Your task to perform on an android device: Clear all items from cart on walmart.com. Search for "macbook pro 13 inch" on walmart.com, select the first entry, add it to the cart, then select checkout. Image 0: 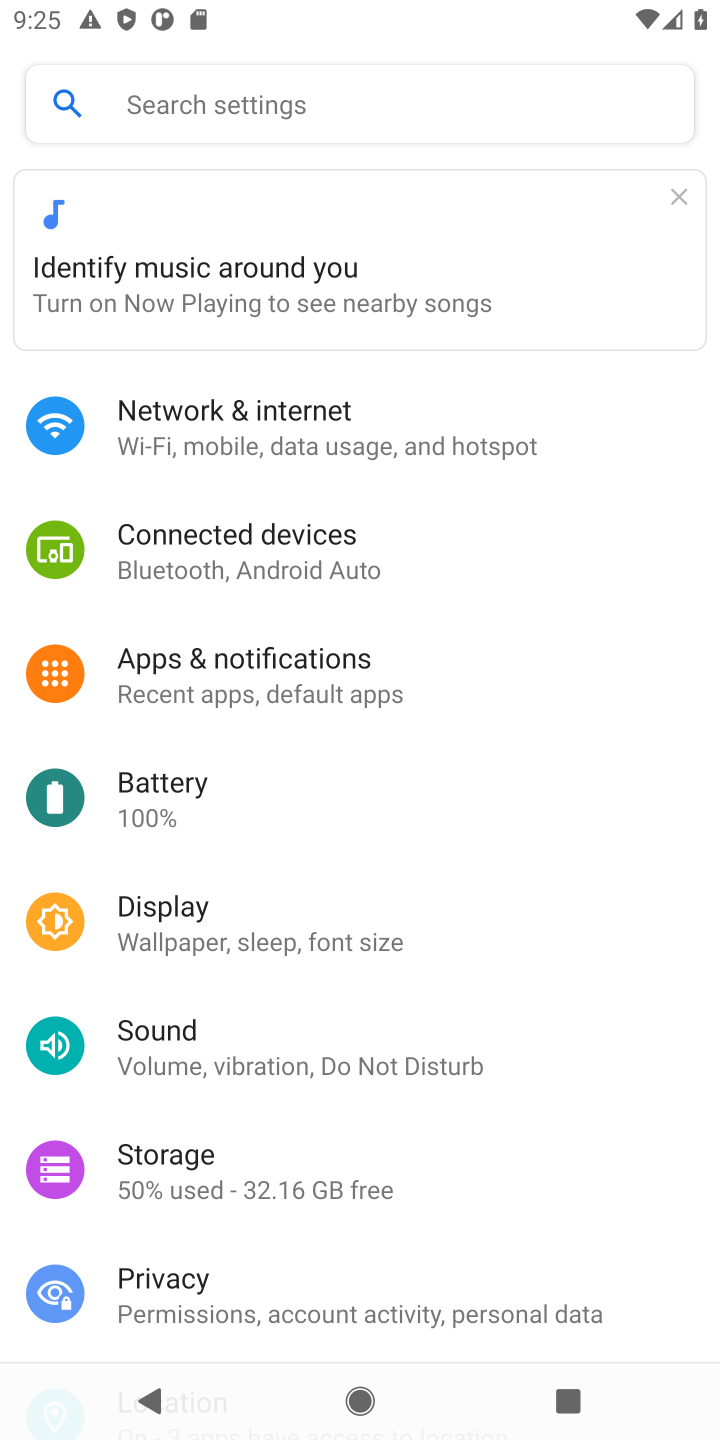
Step 0: press home button
Your task to perform on an android device: Clear all items from cart on walmart.com. Search for "macbook pro 13 inch" on walmart.com, select the first entry, add it to the cart, then select checkout. Image 1: 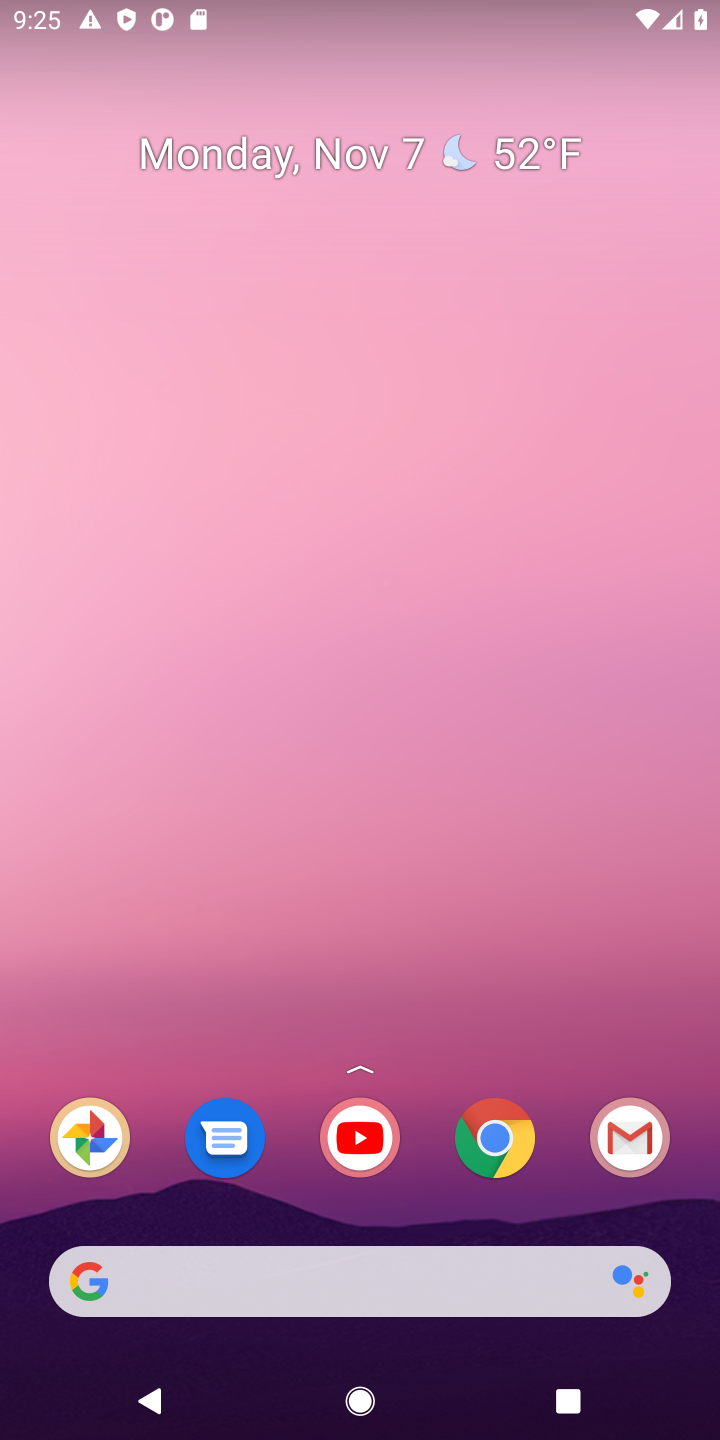
Step 1: drag from (427, 1229) to (351, 203)
Your task to perform on an android device: Clear all items from cart on walmart.com. Search for "macbook pro 13 inch" on walmart.com, select the first entry, add it to the cart, then select checkout. Image 2: 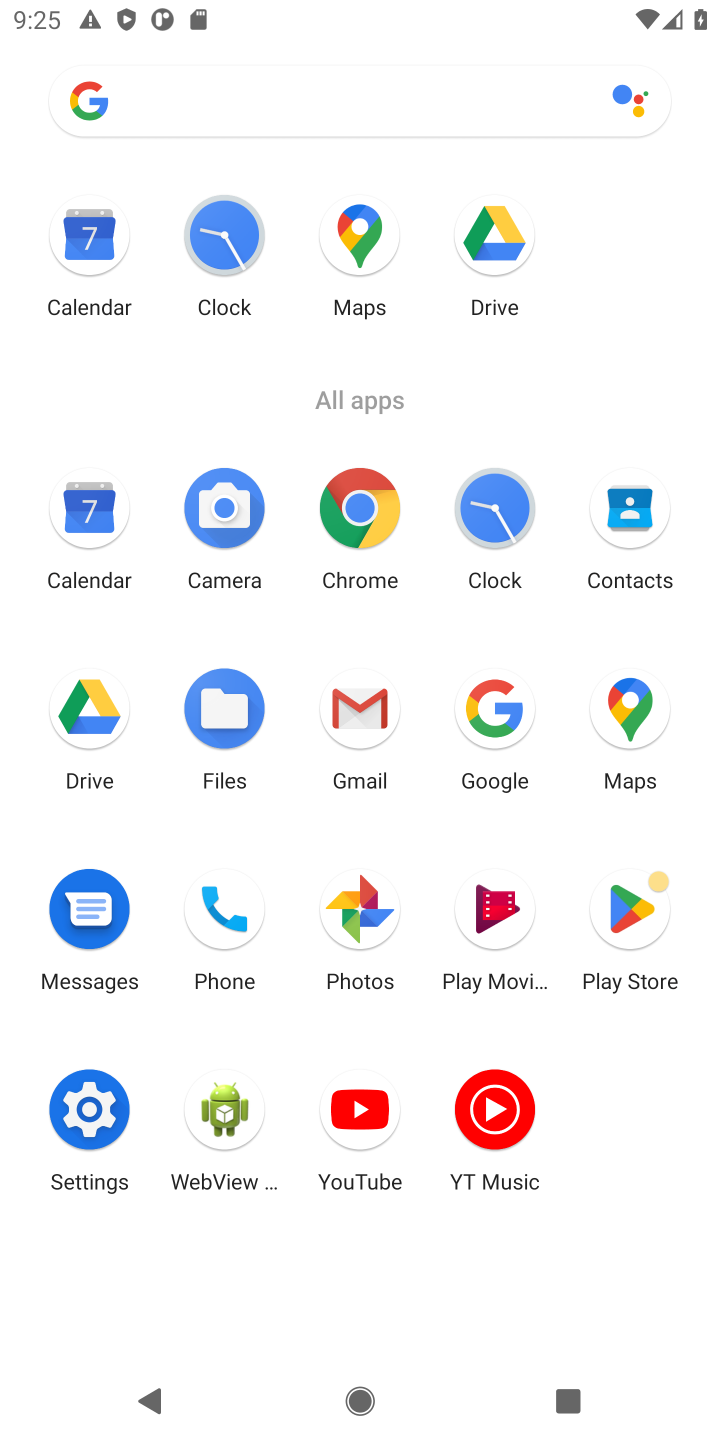
Step 2: click (353, 509)
Your task to perform on an android device: Clear all items from cart on walmart.com. Search for "macbook pro 13 inch" on walmart.com, select the first entry, add it to the cart, then select checkout. Image 3: 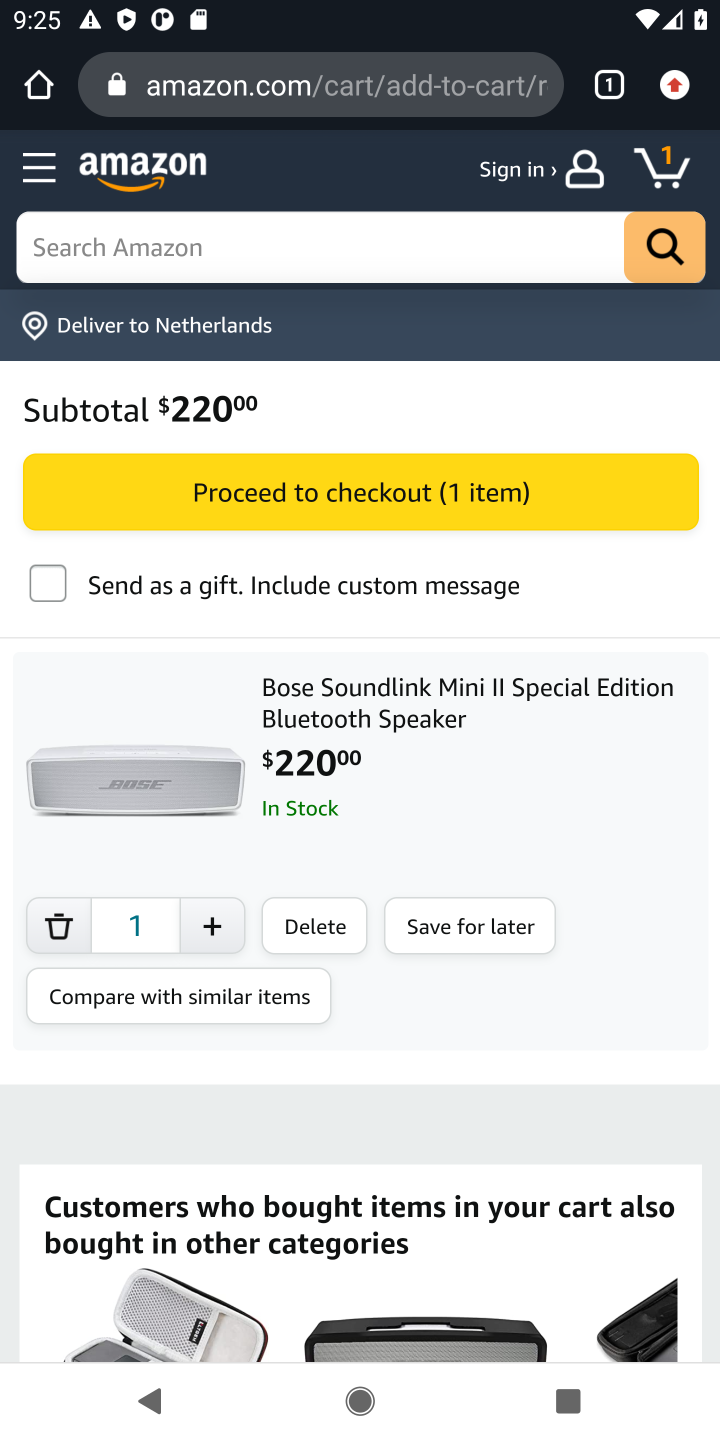
Step 3: click (358, 78)
Your task to perform on an android device: Clear all items from cart on walmart.com. Search for "macbook pro 13 inch" on walmart.com, select the first entry, add it to the cart, then select checkout. Image 4: 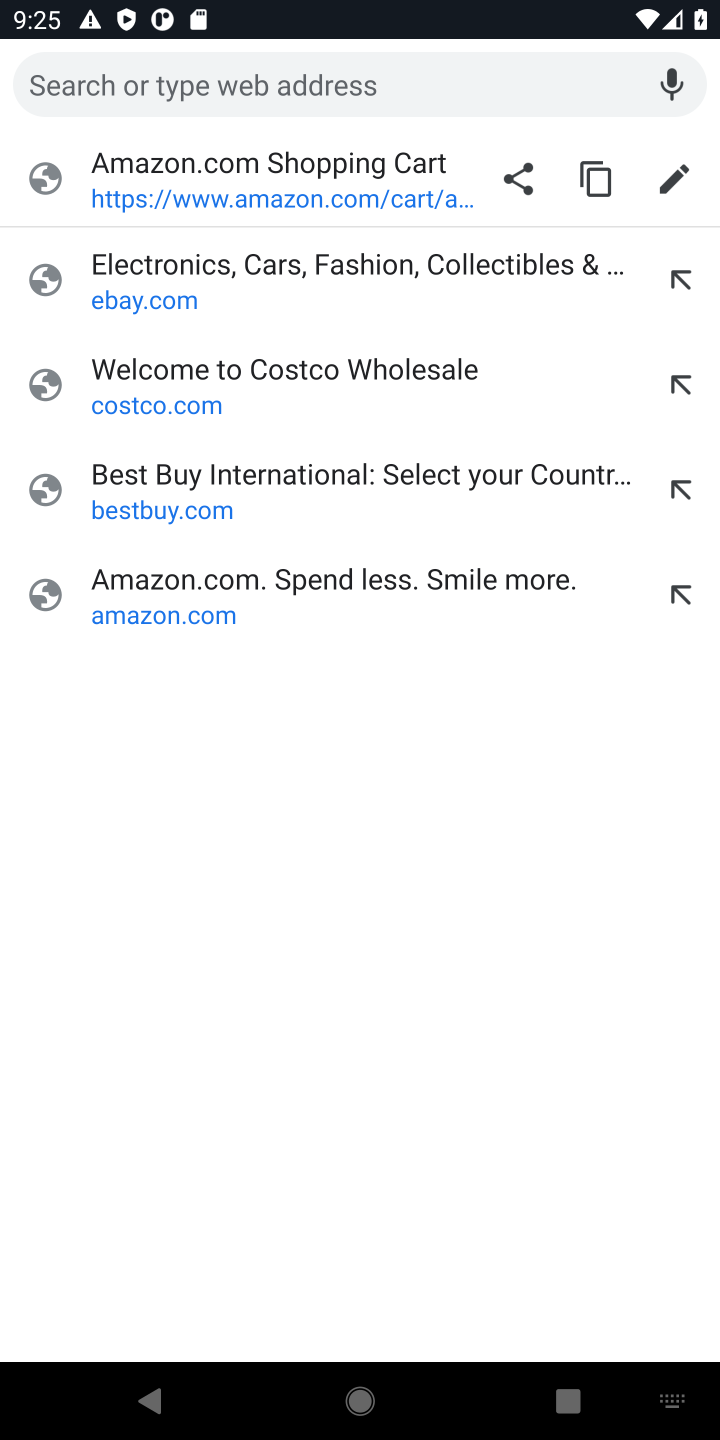
Step 4: type "walmart.com"
Your task to perform on an android device: Clear all items from cart on walmart.com. Search for "macbook pro 13 inch" on walmart.com, select the first entry, add it to the cart, then select checkout. Image 5: 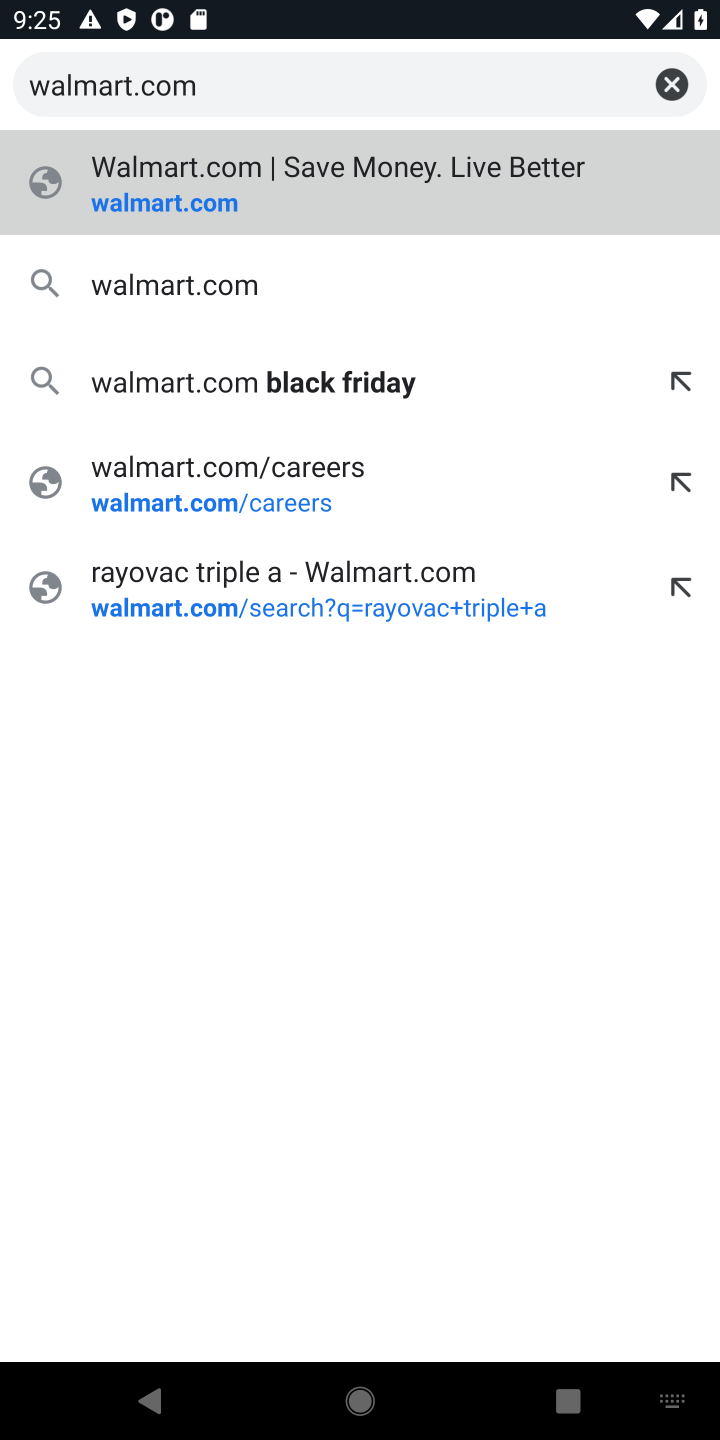
Step 5: press enter
Your task to perform on an android device: Clear all items from cart on walmart.com. Search for "macbook pro 13 inch" on walmart.com, select the first entry, add it to the cart, then select checkout. Image 6: 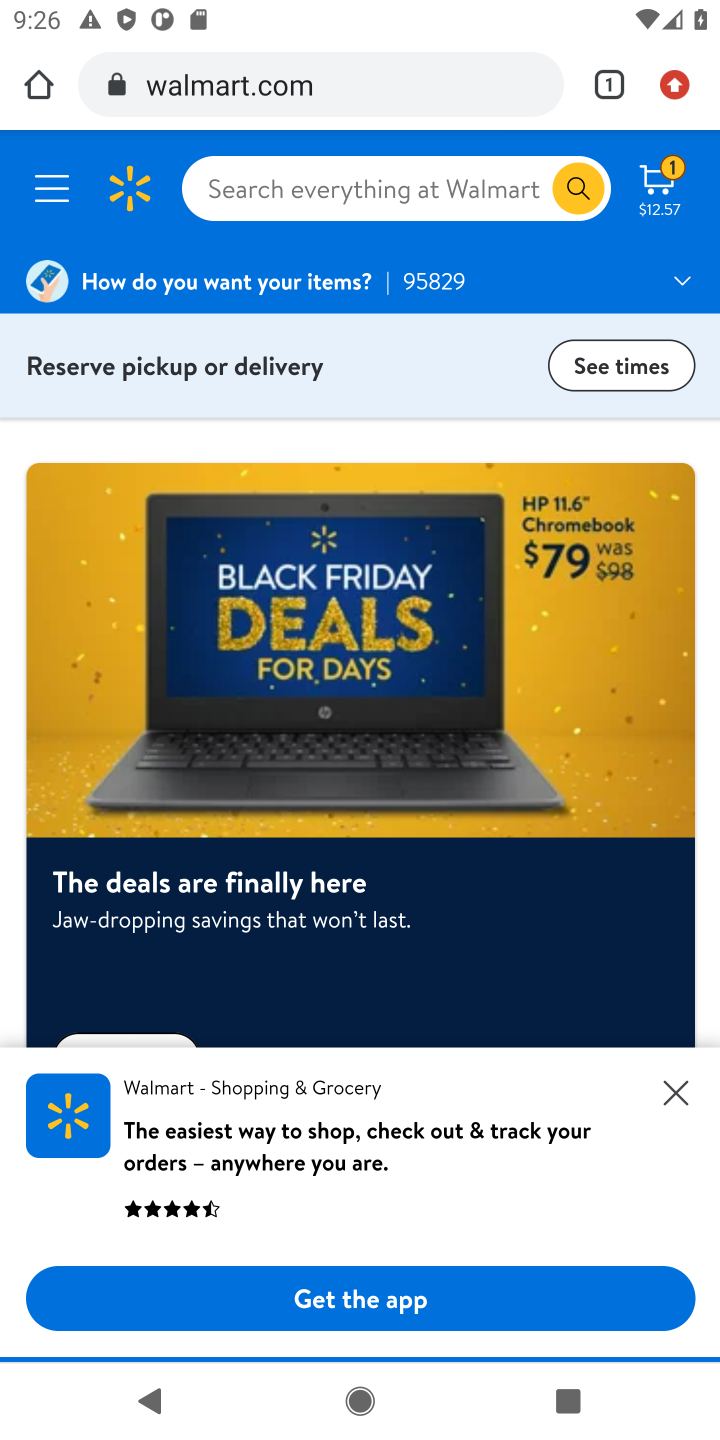
Step 6: click (667, 198)
Your task to perform on an android device: Clear all items from cart on walmart.com. Search for "macbook pro 13 inch" on walmart.com, select the first entry, add it to the cart, then select checkout. Image 7: 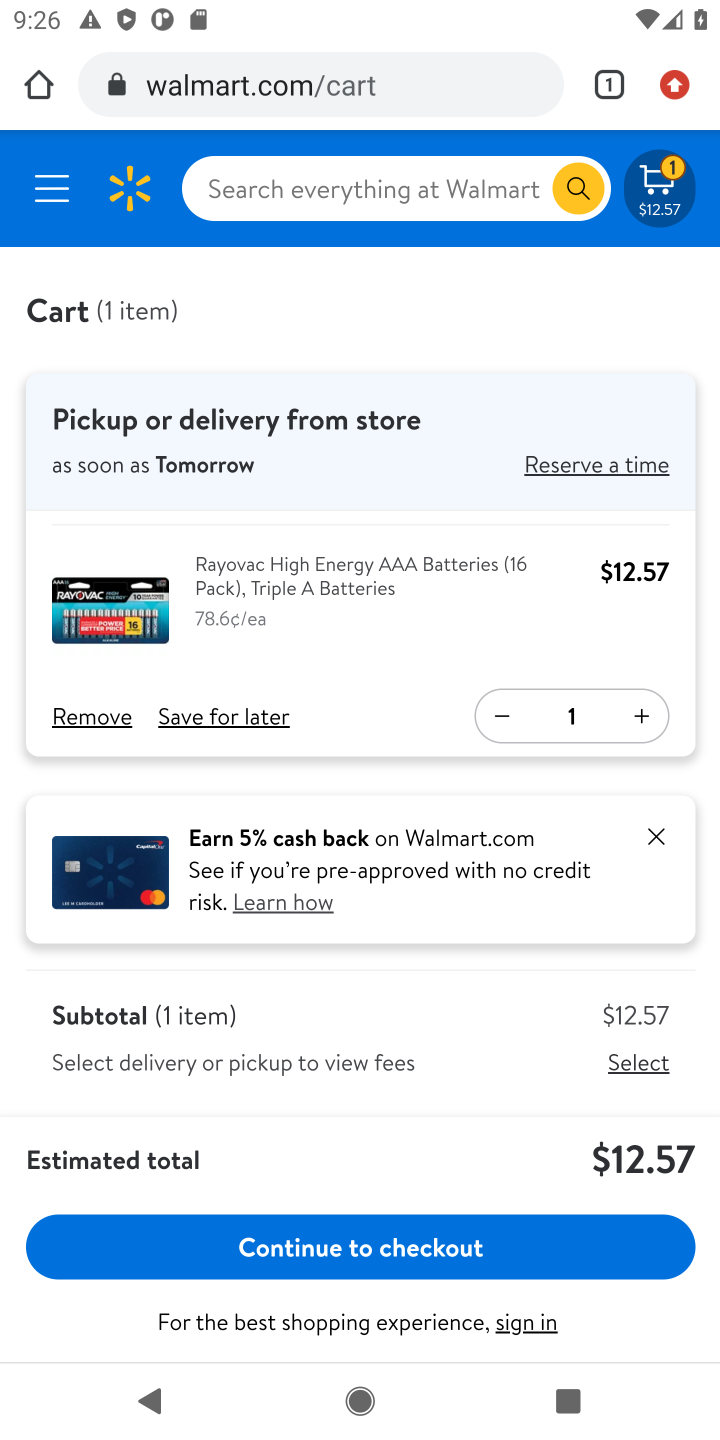
Step 7: click (93, 719)
Your task to perform on an android device: Clear all items from cart on walmart.com. Search for "macbook pro 13 inch" on walmart.com, select the first entry, add it to the cart, then select checkout. Image 8: 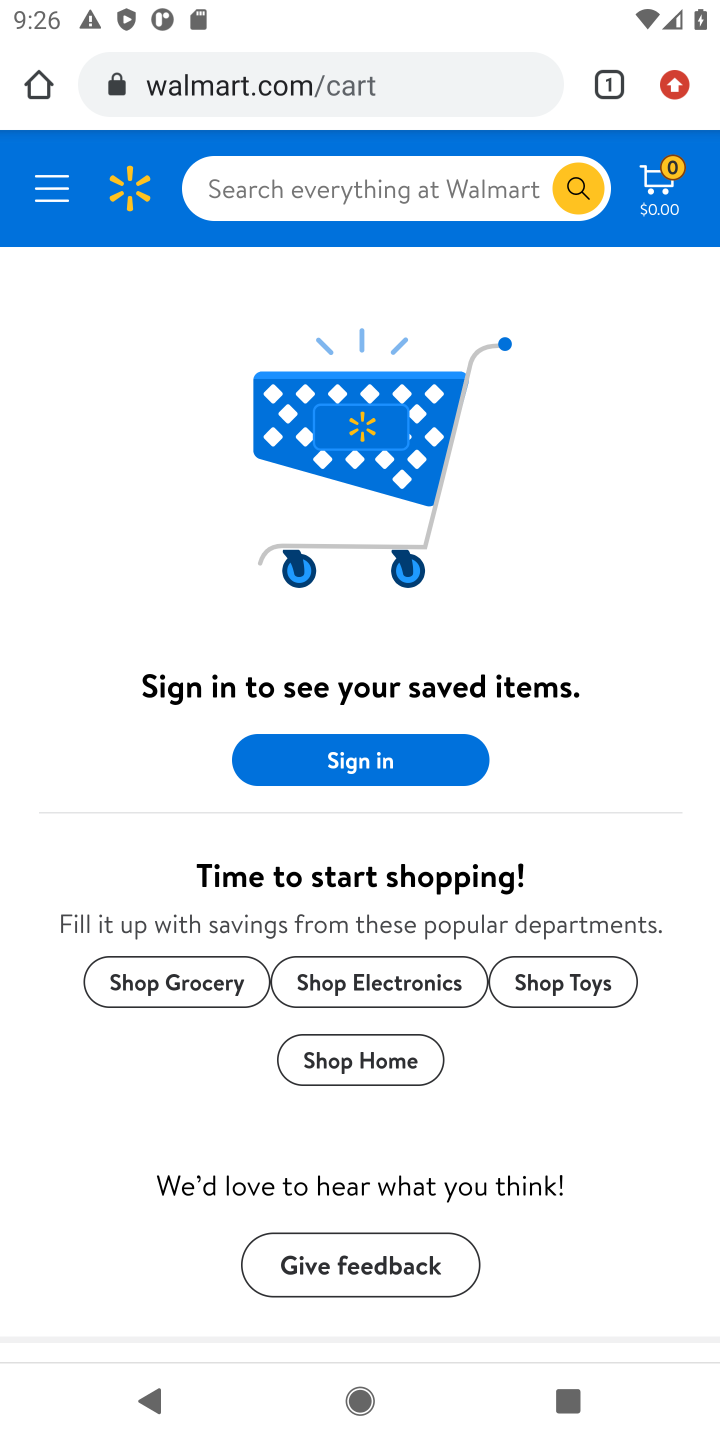
Step 8: click (416, 186)
Your task to perform on an android device: Clear all items from cart on walmart.com. Search for "macbook pro 13 inch" on walmart.com, select the first entry, add it to the cart, then select checkout. Image 9: 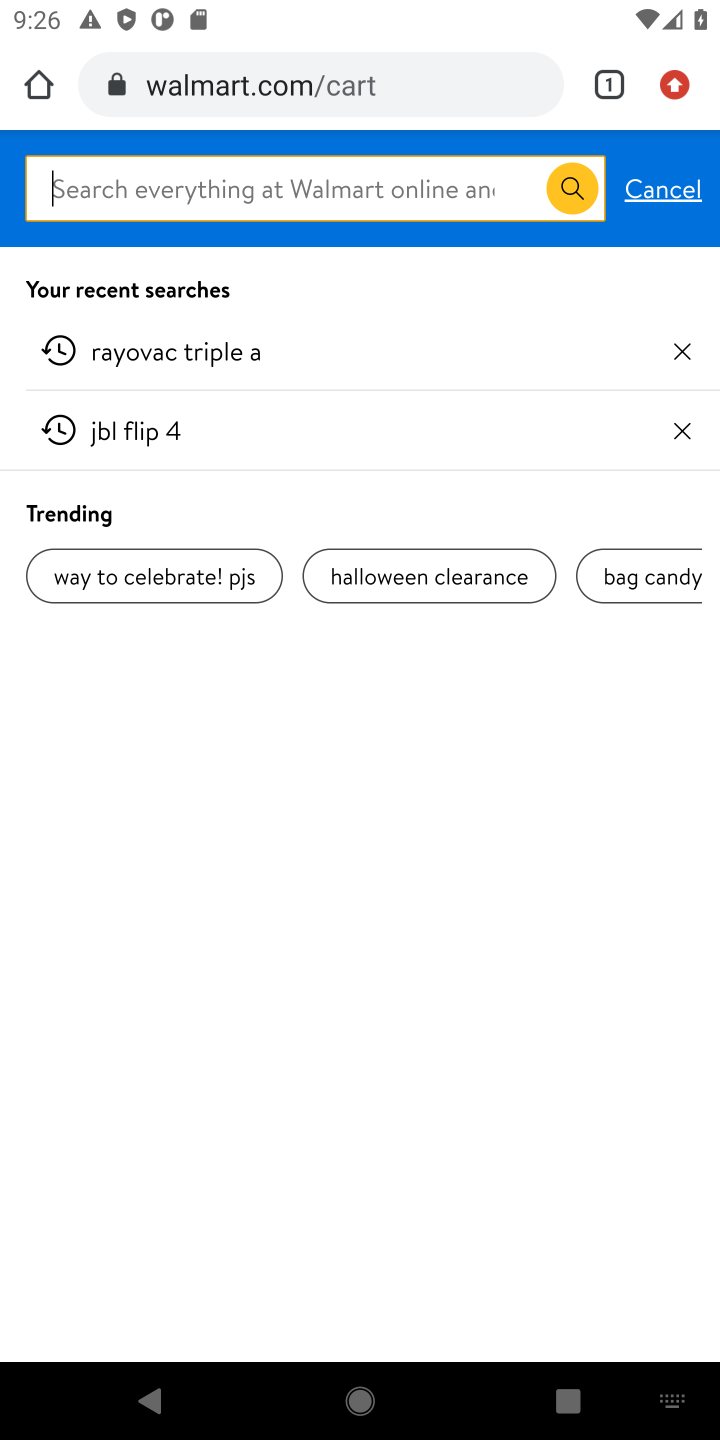
Step 9: type "macbook pro 13 inch"
Your task to perform on an android device: Clear all items from cart on walmart.com. Search for "macbook pro 13 inch" on walmart.com, select the first entry, add it to the cart, then select checkout. Image 10: 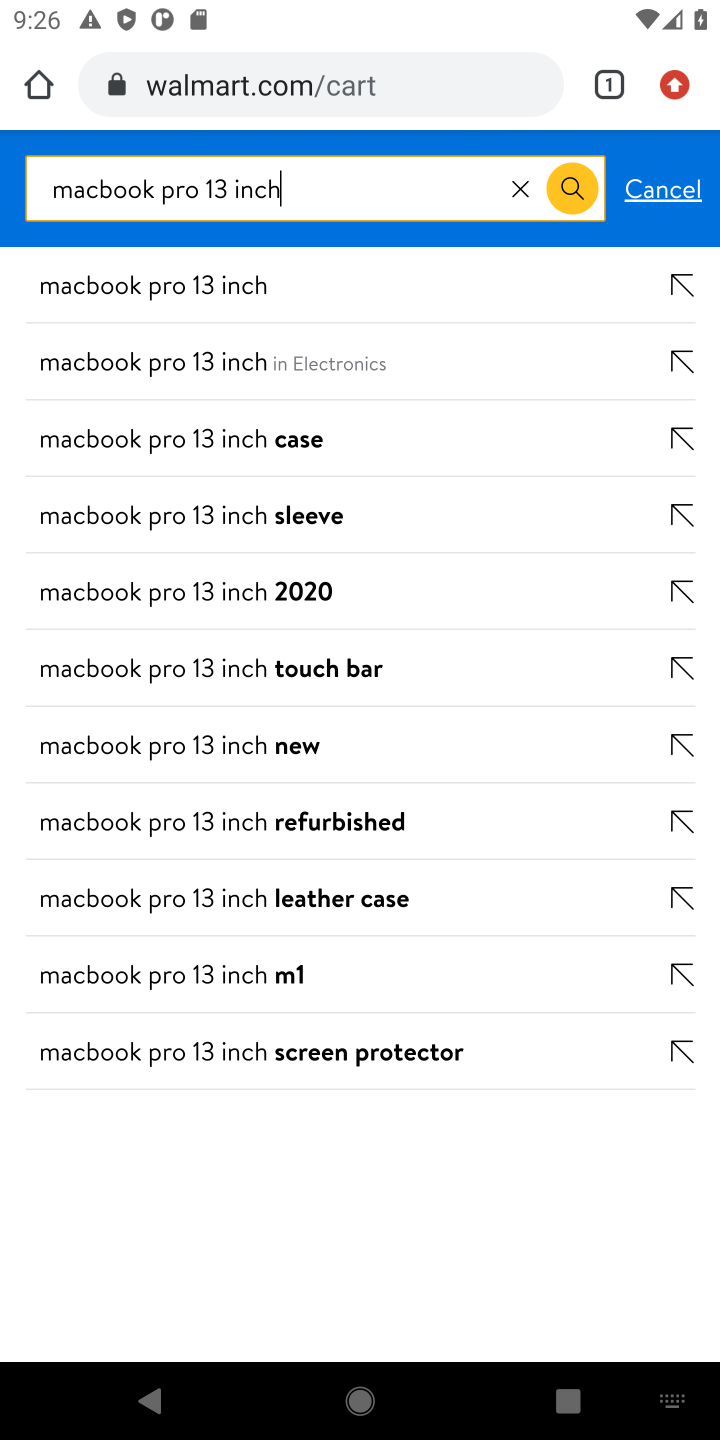
Step 10: press enter
Your task to perform on an android device: Clear all items from cart on walmart.com. Search for "macbook pro 13 inch" on walmart.com, select the first entry, add it to the cart, then select checkout. Image 11: 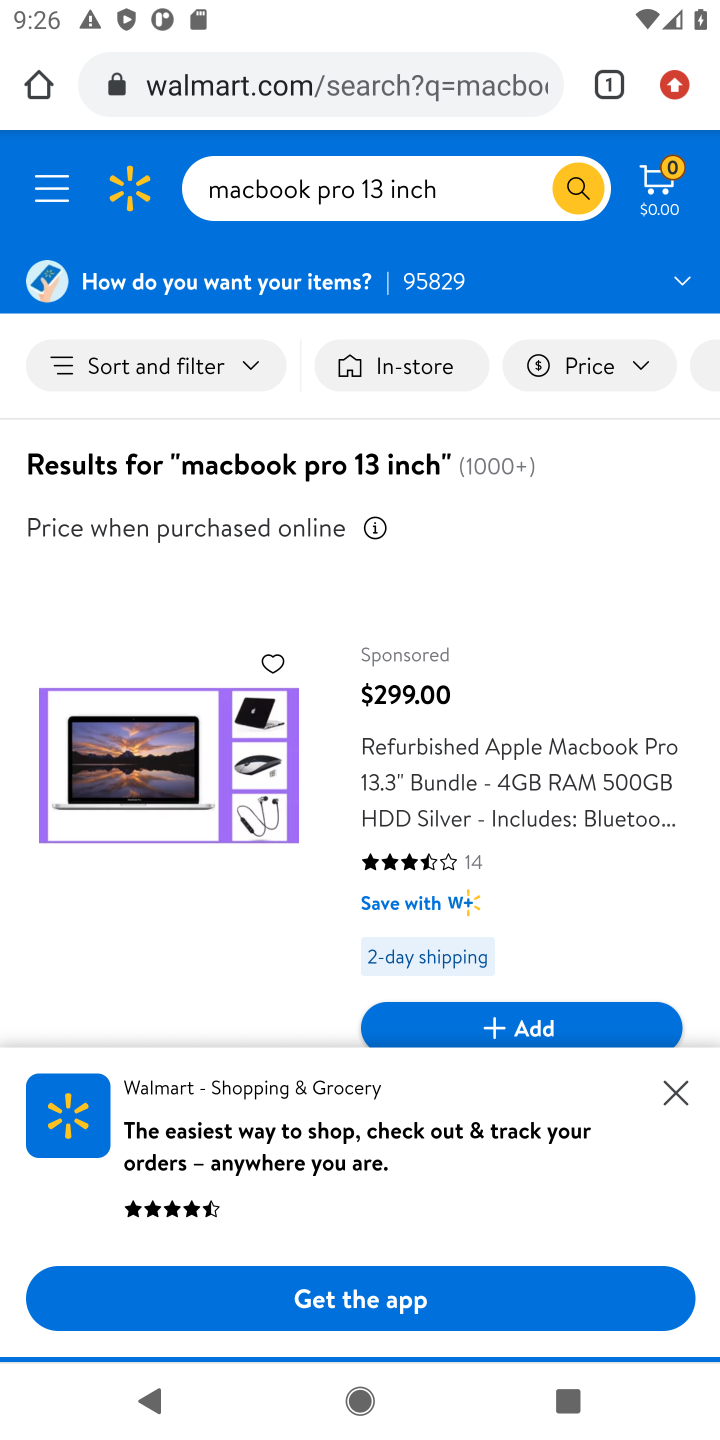
Step 11: drag from (504, 902) to (492, 255)
Your task to perform on an android device: Clear all items from cart on walmart.com. Search for "macbook pro 13 inch" on walmart.com, select the first entry, add it to the cart, then select checkout. Image 12: 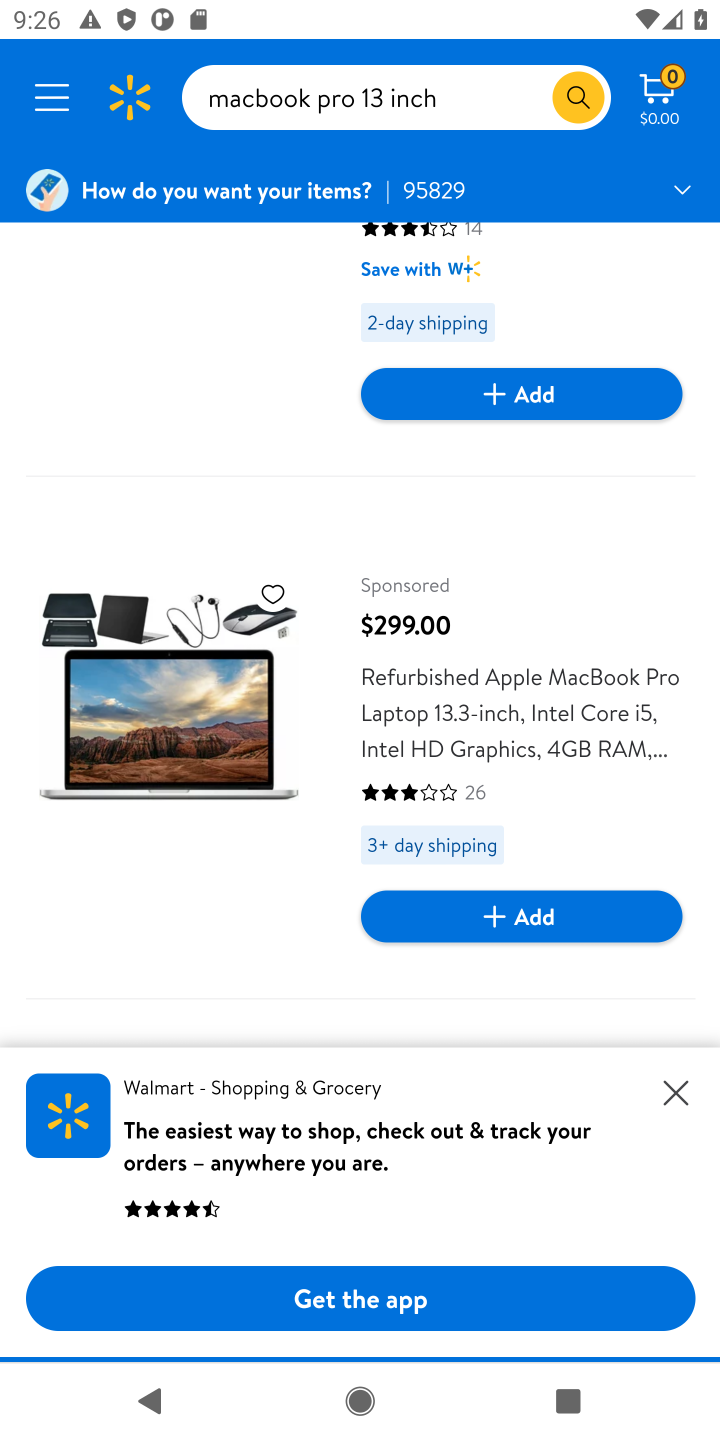
Step 12: drag from (429, 1028) to (383, 376)
Your task to perform on an android device: Clear all items from cart on walmart.com. Search for "macbook pro 13 inch" on walmart.com, select the first entry, add it to the cart, then select checkout. Image 13: 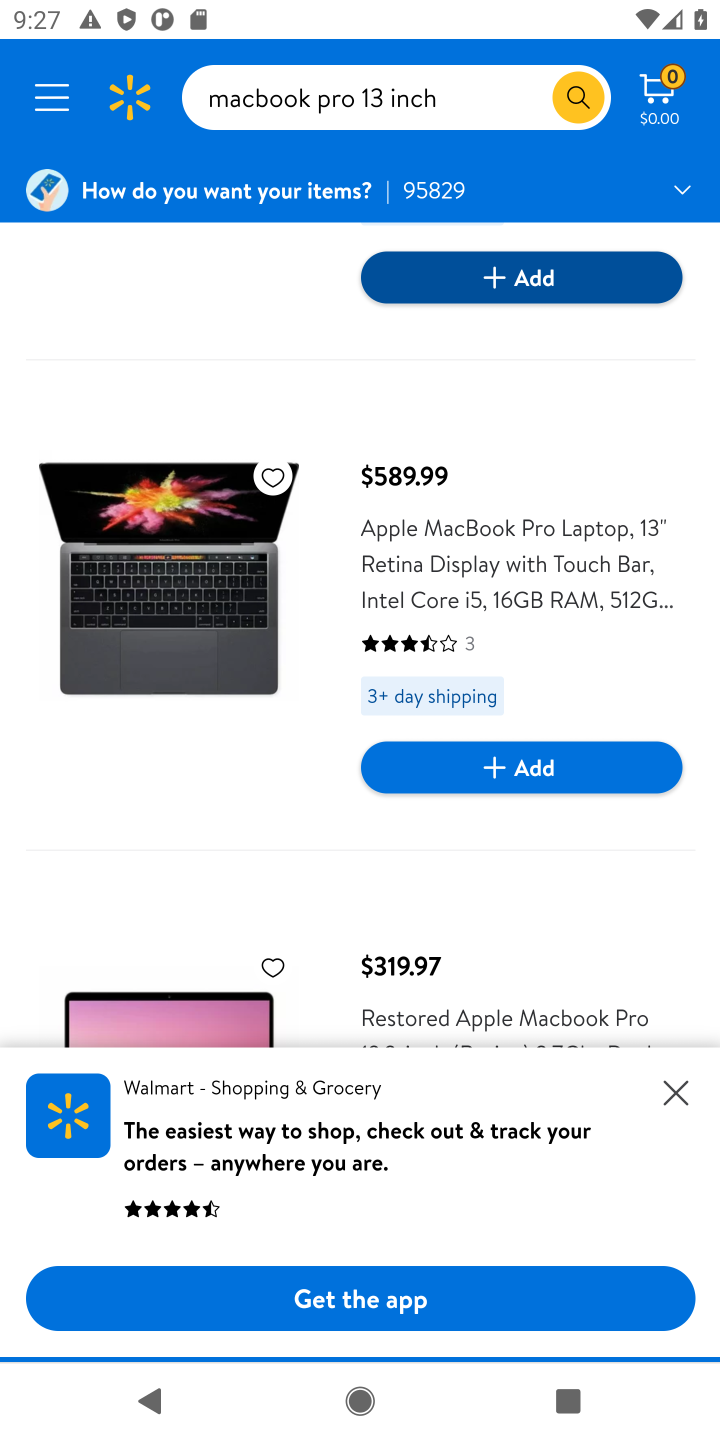
Step 13: click (535, 772)
Your task to perform on an android device: Clear all items from cart on walmart.com. Search for "macbook pro 13 inch" on walmart.com, select the first entry, add it to the cart, then select checkout. Image 14: 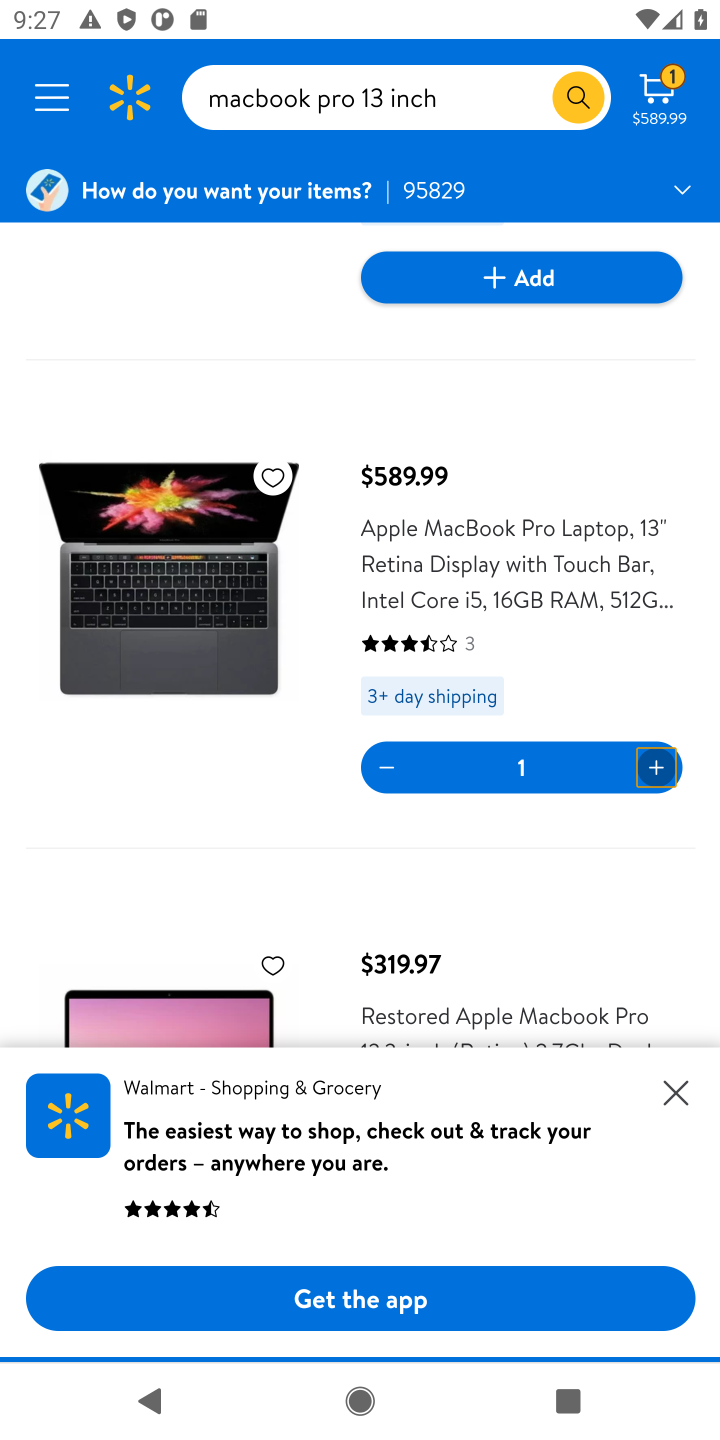
Step 14: click (662, 93)
Your task to perform on an android device: Clear all items from cart on walmart.com. Search for "macbook pro 13 inch" on walmart.com, select the first entry, add it to the cart, then select checkout. Image 15: 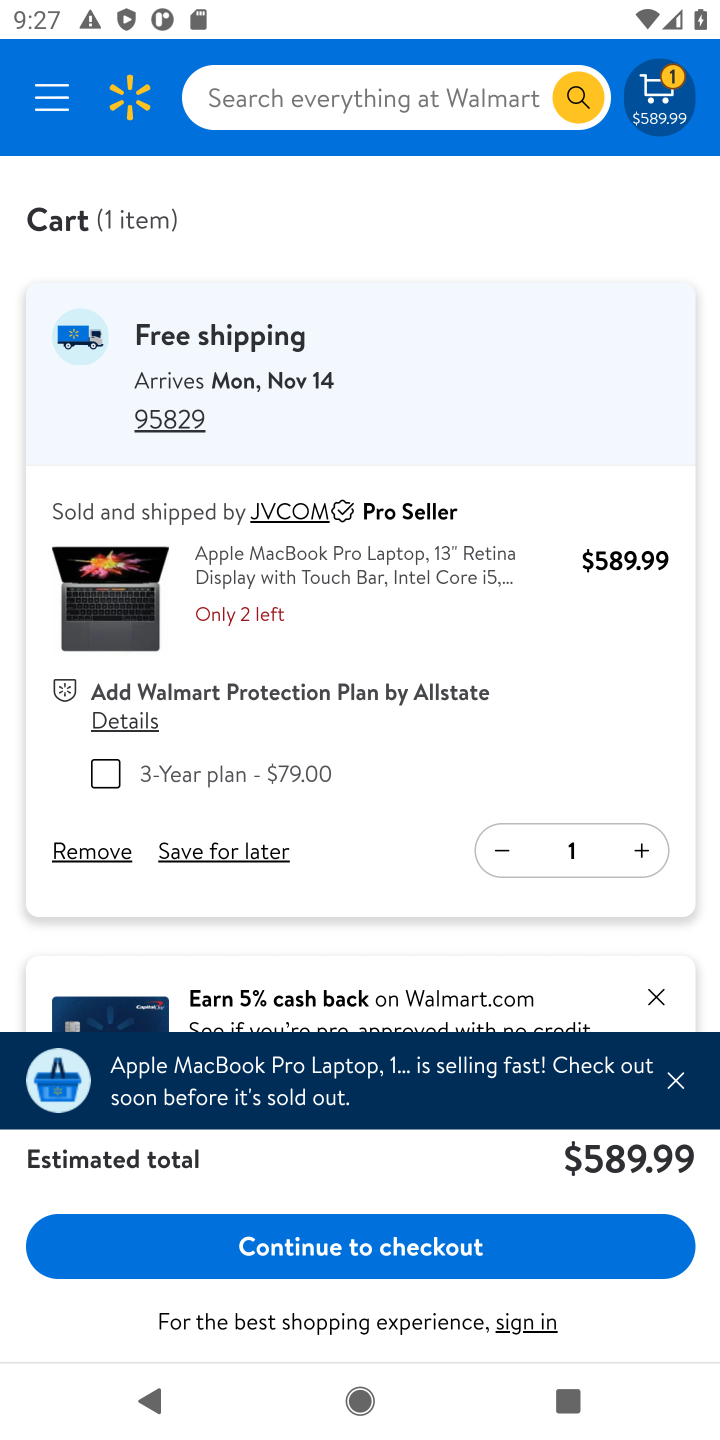
Step 15: click (454, 1244)
Your task to perform on an android device: Clear all items from cart on walmart.com. Search for "macbook pro 13 inch" on walmart.com, select the first entry, add it to the cart, then select checkout. Image 16: 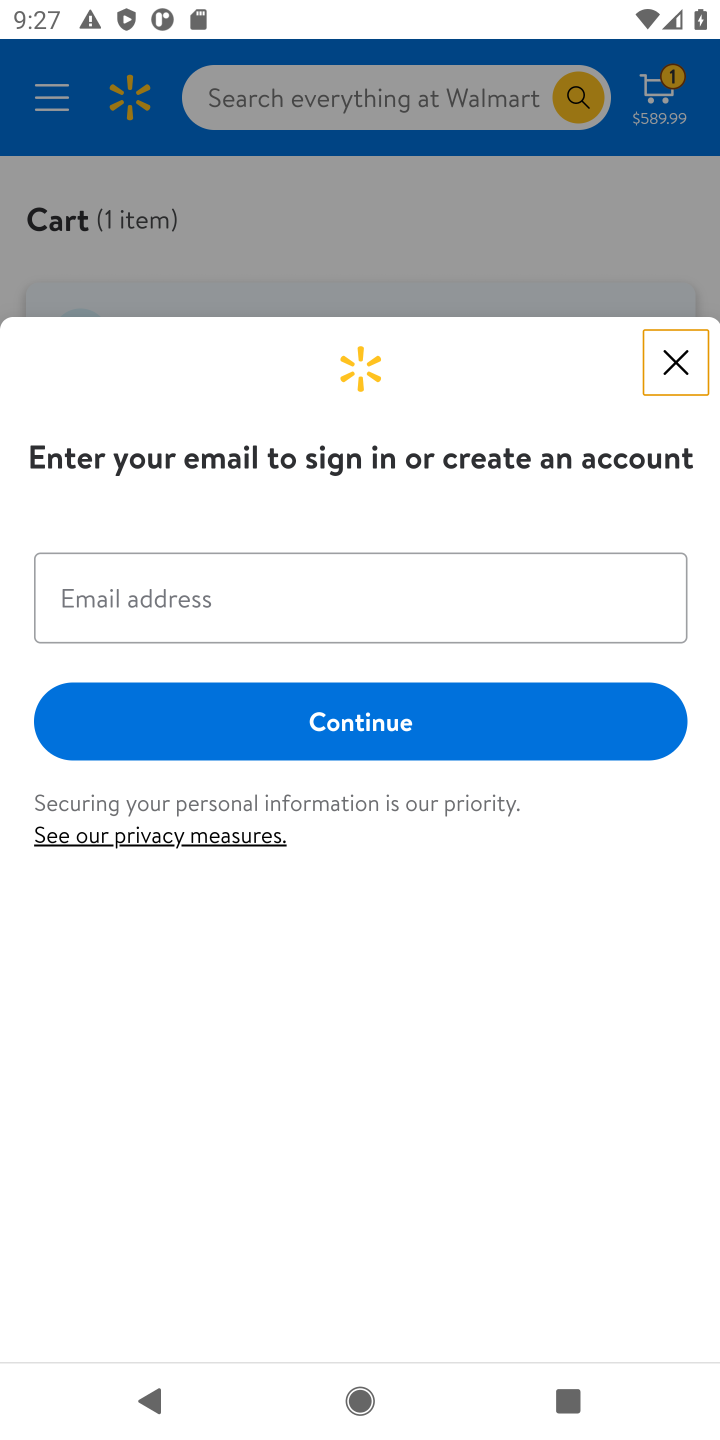
Step 16: task complete